Your task to perform on an android device: open app "Adobe Express: Graphic Design" (install if not already installed), go to login, and select forgot password Image 0: 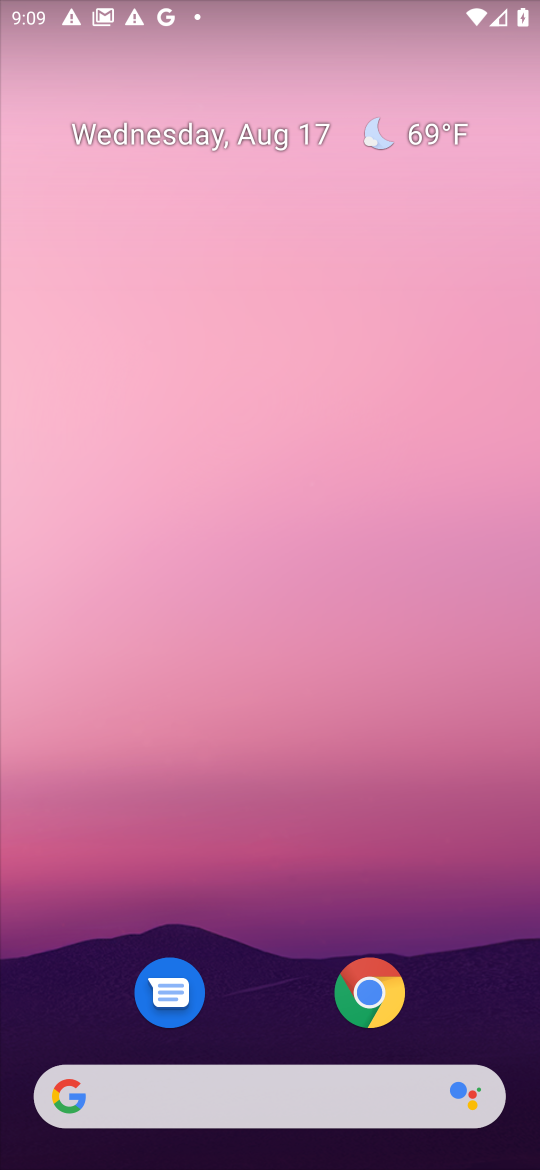
Step 0: drag from (449, 960) to (276, 61)
Your task to perform on an android device: open app "Adobe Express: Graphic Design" (install if not already installed), go to login, and select forgot password Image 1: 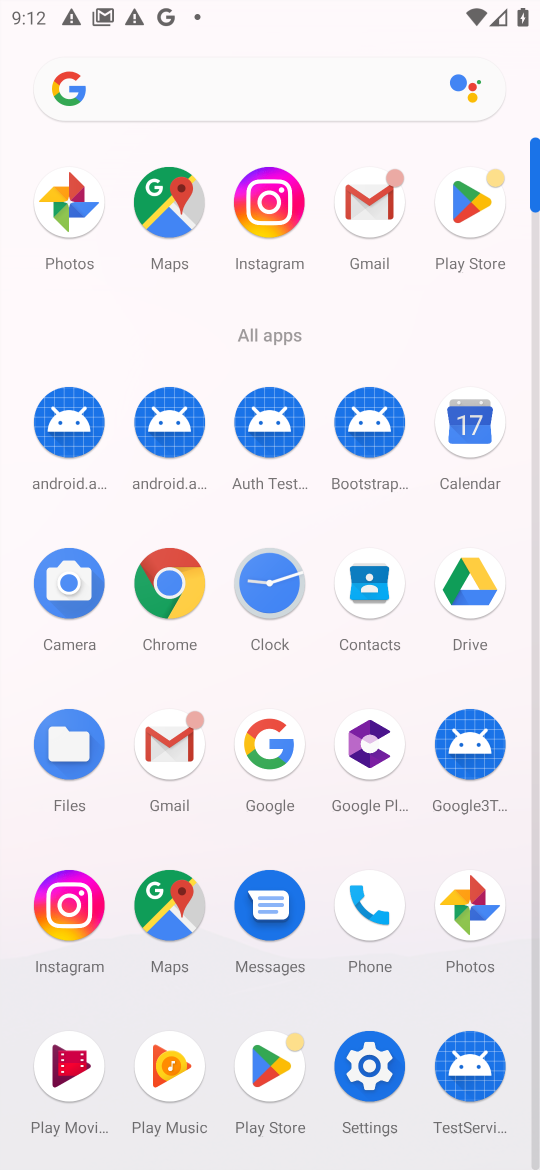
Step 1: click (281, 740)
Your task to perform on an android device: open app "Adobe Express: Graphic Design" (install if not already installed), go to login, and select forgot password Image 2: 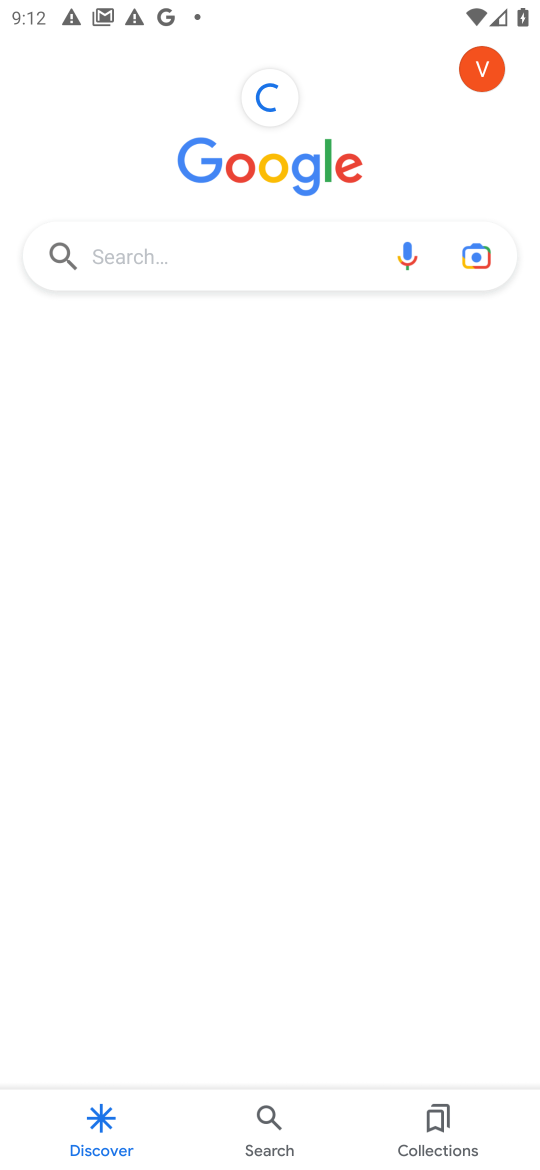
Step 2: click (134, 238)
Your task to perform on an android device: open app "Adobe Express: Graphic Design" (install if not already installed), go to login, and select forgot password Image 3: 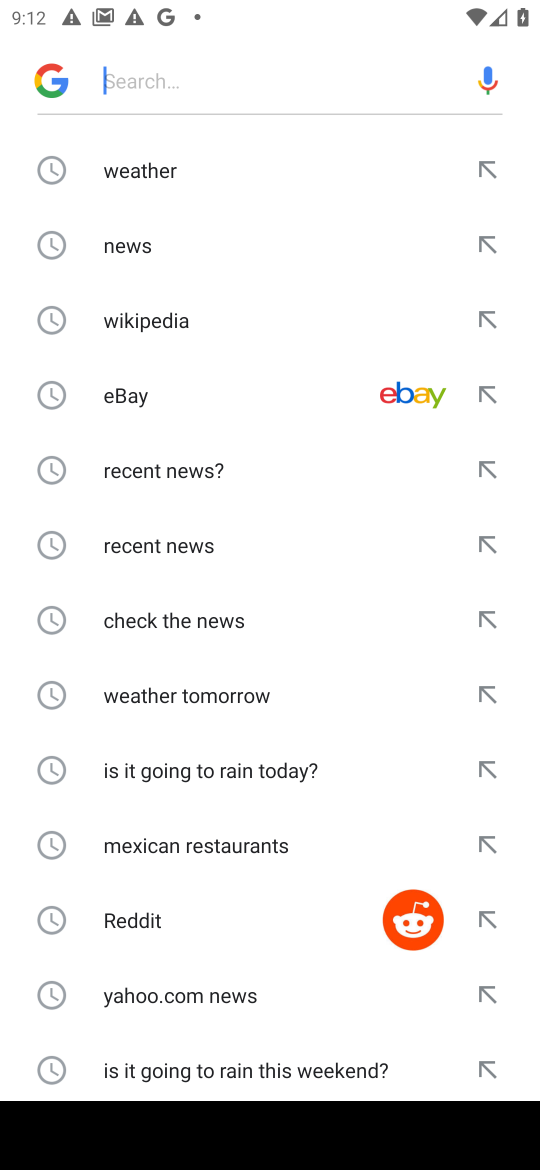
Step 3: type "Adobe Express: Graphic Design"
Your task to perform on an android device: open app "Adobe Express: Graphic Design" (install if not already installed), go to login, and select forgot password Image 4: 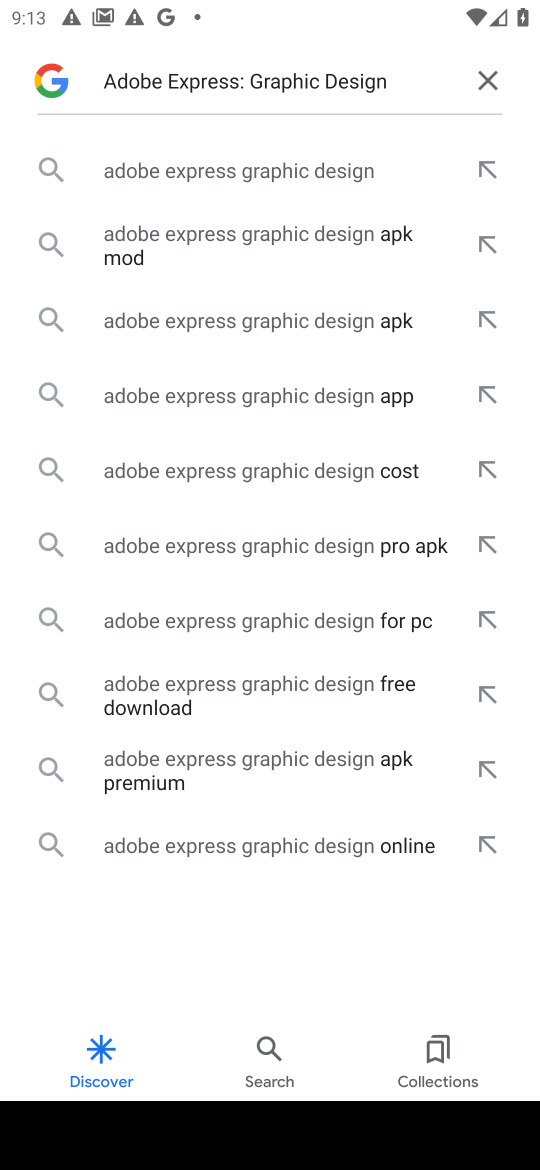
Step 4: click (220, 178)
Your task to perform on an android device: open app "Adobe Express: Graphic Design" (install if not already installed), go to login, and select forgot password Image 5: 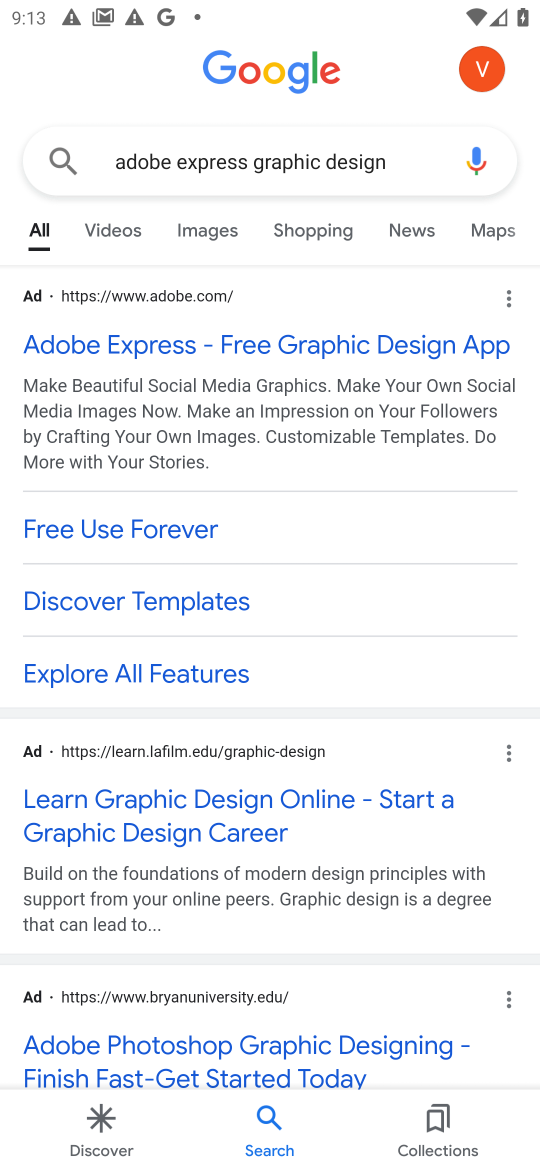
Step 5: task complete